Your task to perform on an android device: Go to network settings Image 0: 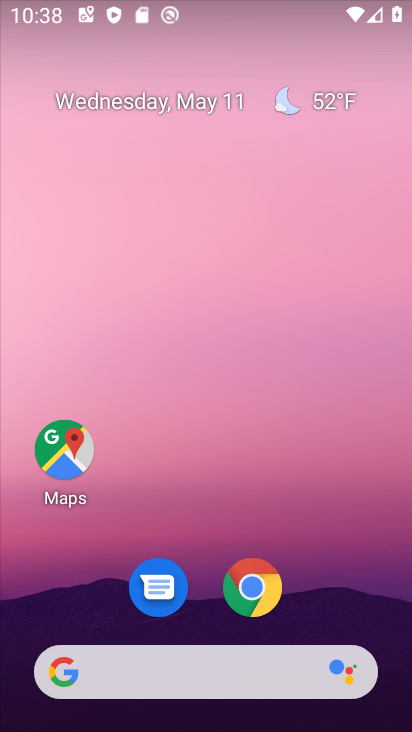
Step 0: drag from (307, 706) to (274, 132)
Your task to perform on an android device: Go to network settings Image 1: 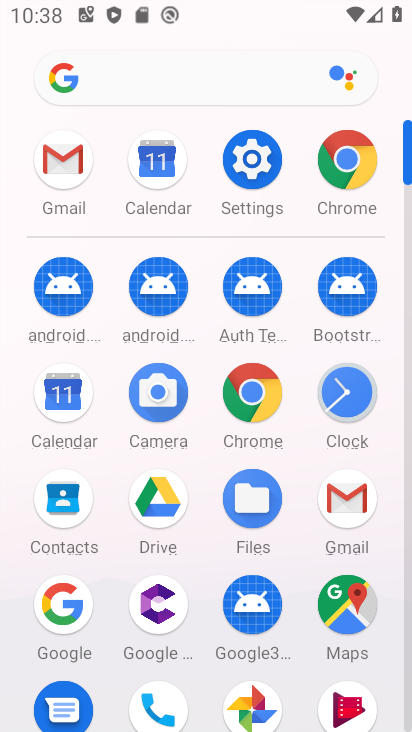
Step 1: click (274, 167)
Your task to perform on an android device: Go to network settings Image 2: 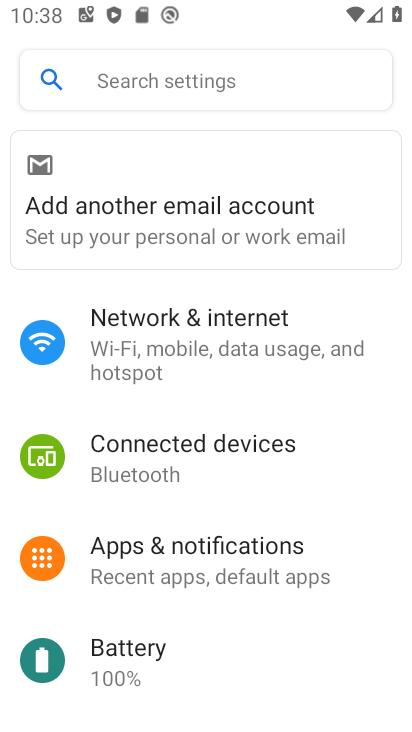
Step 2: click (210, 318)
Your task to perform on an android device: Go to network settings Image 3: 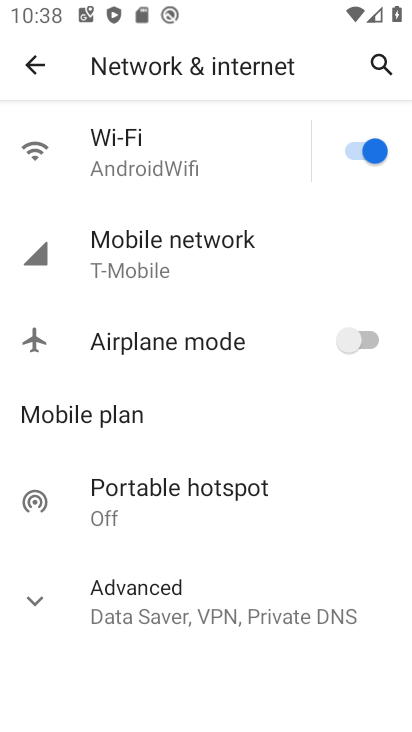
Step 3: click (170, 258)
Your task to perform on an android device: Go to network settings Image 4: 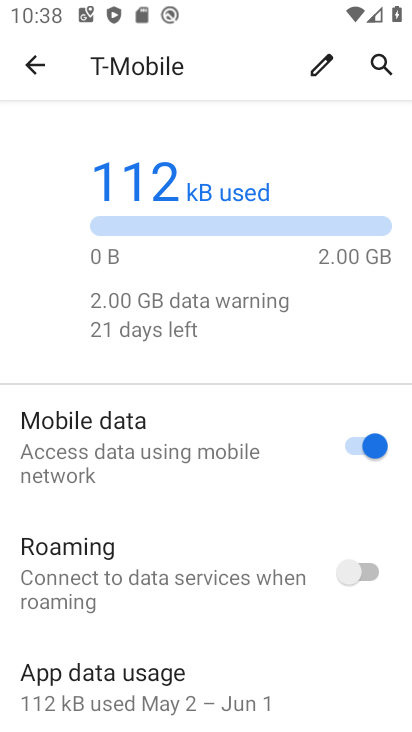
Step 4: task complete